Your task to perform on an android device: open sync settings in chrome Image 0: 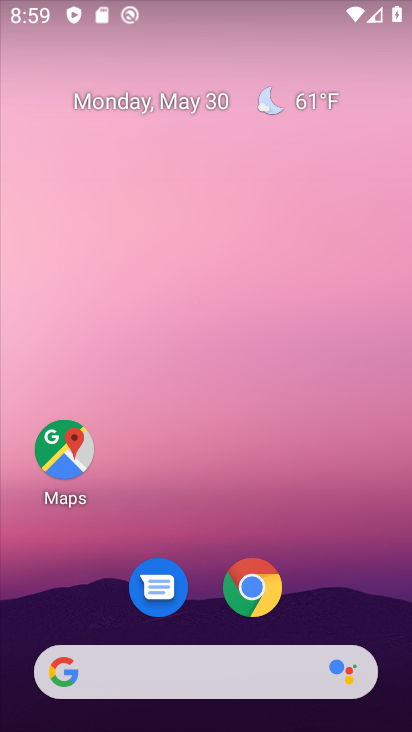
Step 0: click (275, 593)
Your task to perform on an android device: open sync settings in chrome Image 1: 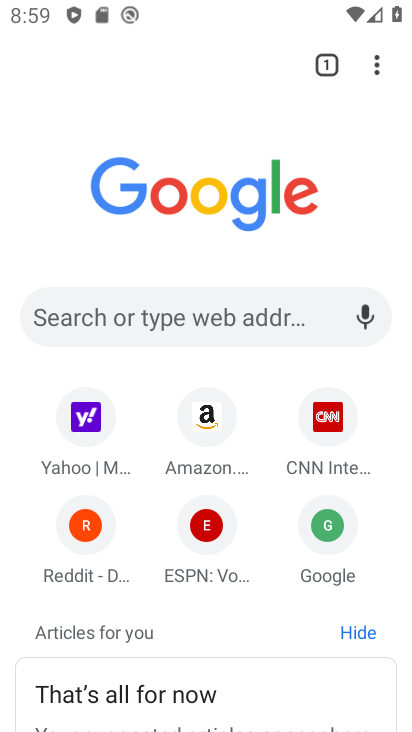
Step 1: click (383, 66)
Your task to perform on an android device: open sync settings in chrome Image 2: 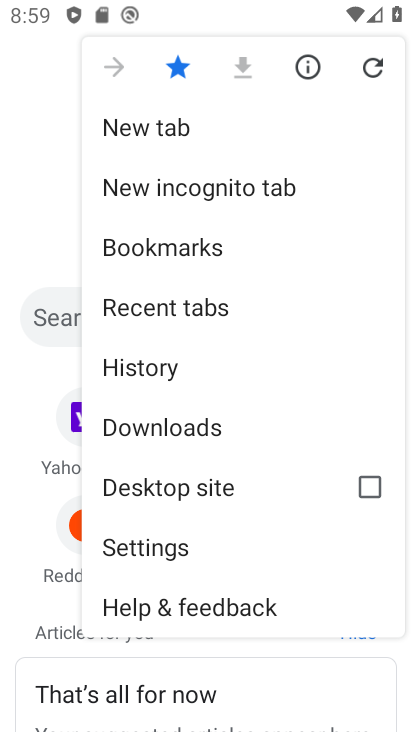
Step 2: click (163, 539)
Your task to perform on an android device: open sync settings in chrome Image 3: 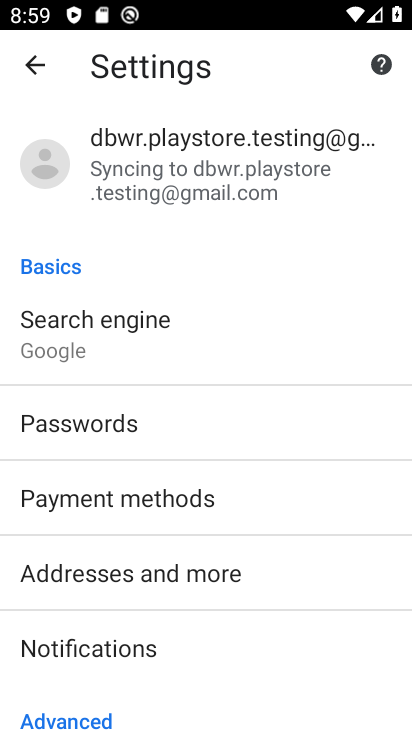
Step 3: drag from (148, 605) to (145, 34)
Your task to perform on an android device: open sync settings in chrome Image 4: 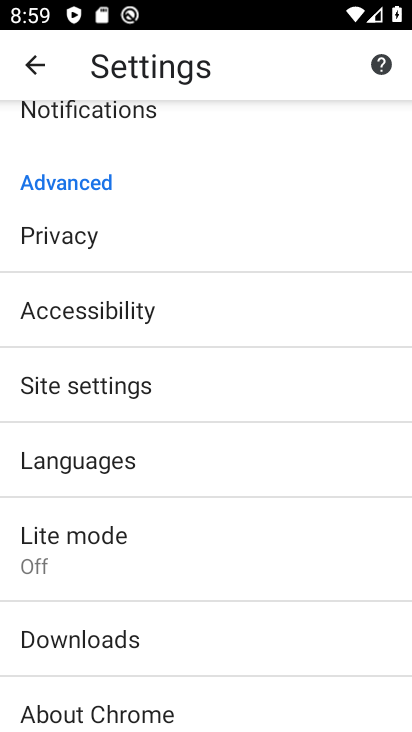
Step 4: drag from (95, 560) to (50, 726)
Your task to perform on an android device: open sync settings in chrome Image 5: 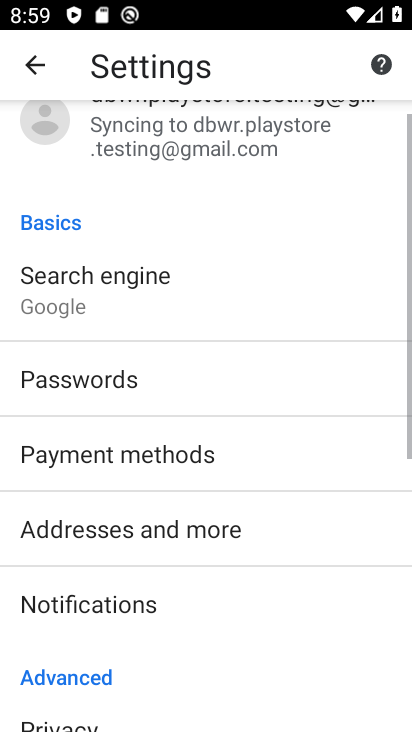
Step 5: click (154, 133)
Your task to perform on an android device: open sync settings in chrome Image 6: 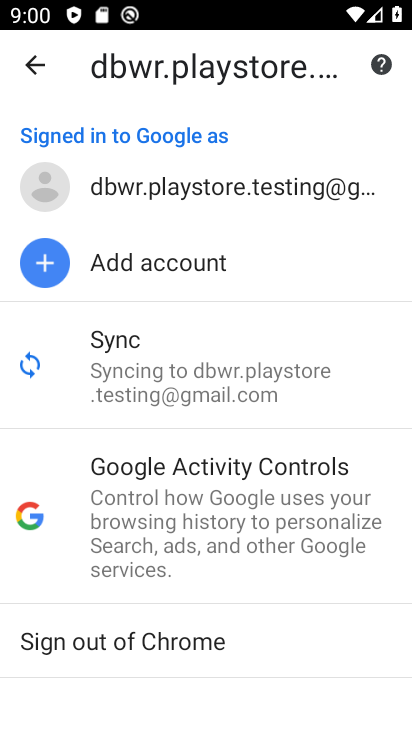
Step 6: click (109, 357)
Your task to perform on an android device: open sync settings in chrome Image 7: 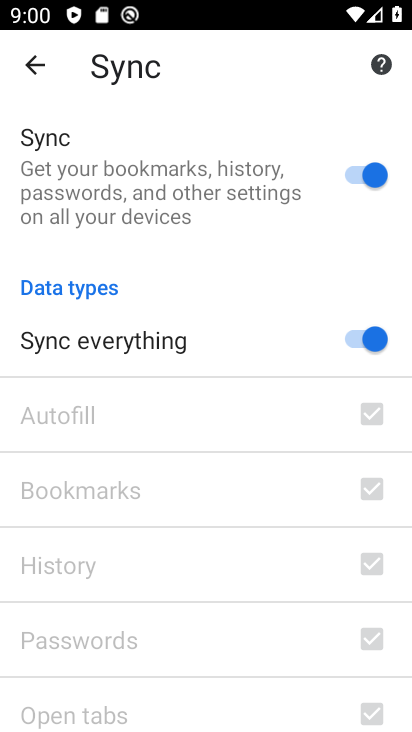
Step 7: task complete